Your task to perform on an android device: What's the weather today? Image 0: 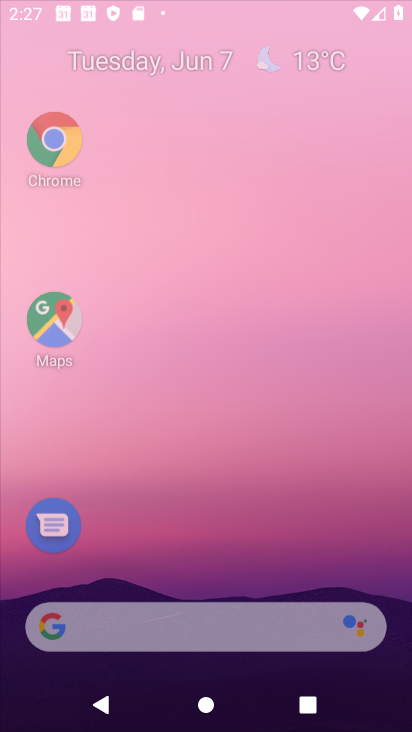
Step 0: click (328, 2)
Your task to perform on an android device: What's the weather today? Image 1: 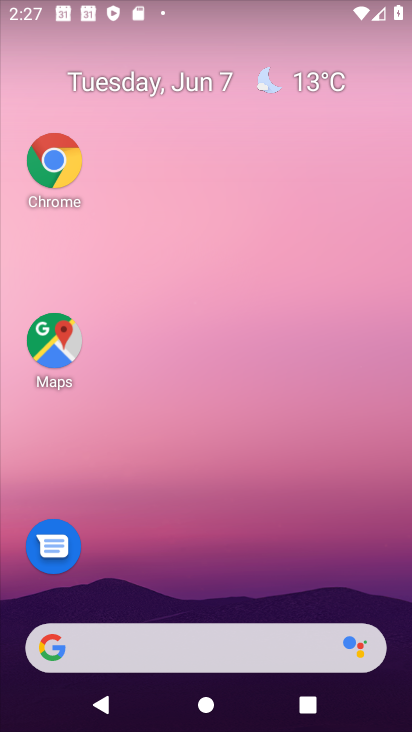
Step 1: drag from (176, 580) to (207, 106)
Your task to perform on an android device: What's the weather today? Image 2: 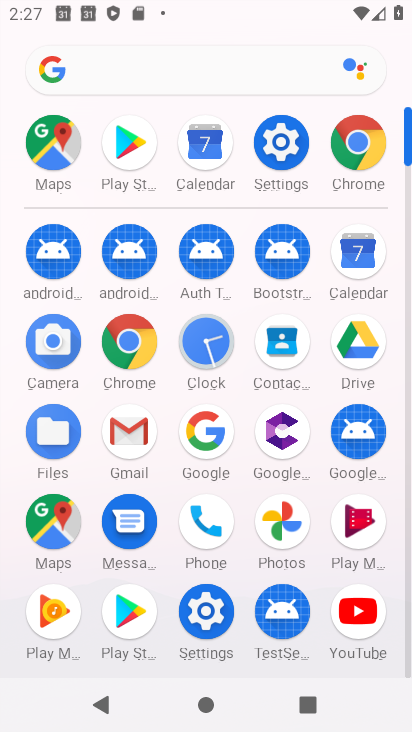
Step 2: click (176, 76)
Your task to perform on an android device: What's the weather today? Image 3: 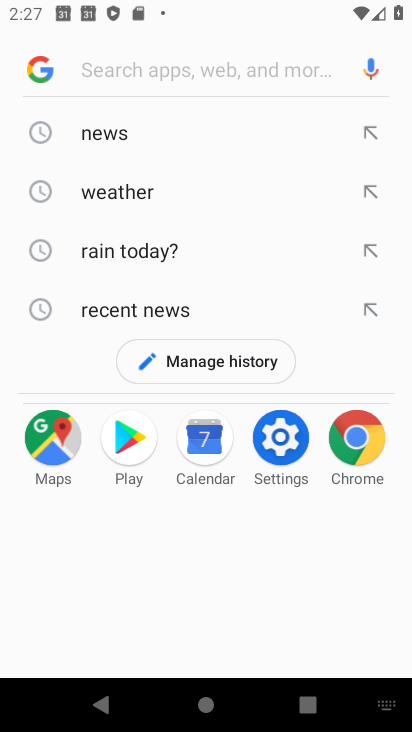
Step 3: click (131, 195)
Your task to perform on an android device: What's the weather today? Image 4: 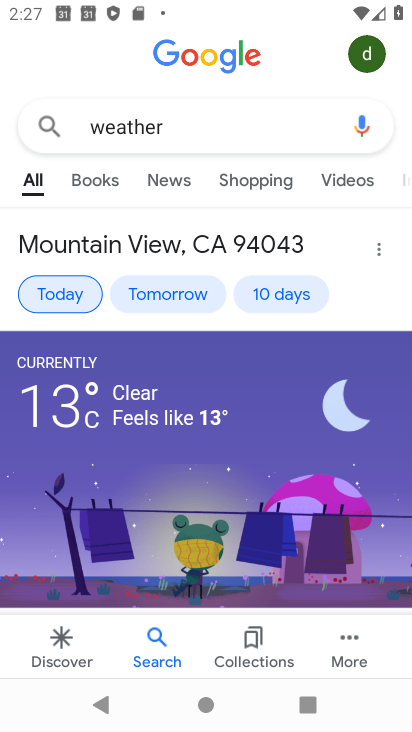
Step 4: drag from (179, 421) to (320, 34)
Your task to perform on an android device: What's the weather today? Image 5: 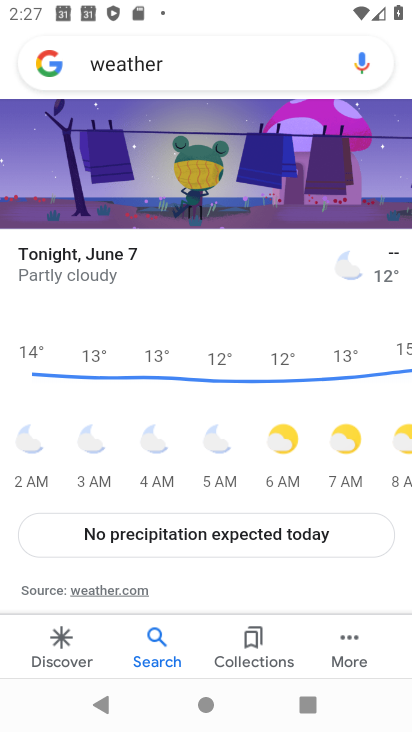
Step 5: drag from (209, 324) to (287, 39)
Your task to perform on an android device: What's the weather today? Image 6: 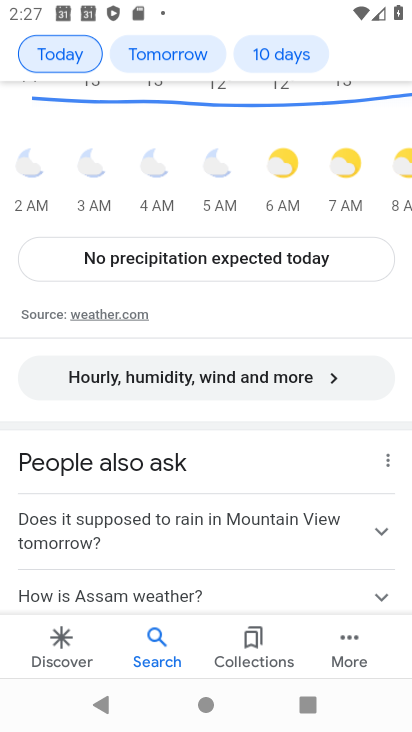
Step 6: drag from (209, 412) to (247, 3)
Your task to perform on an android device: What's the weather today? Image 7: 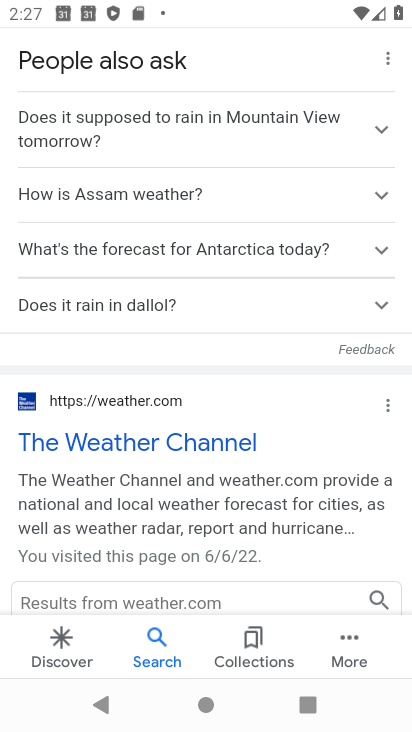
Step 7: drag from (152, 511) to (148, 176)
Your task to perform on an android device: What's the weather today? Image 8: 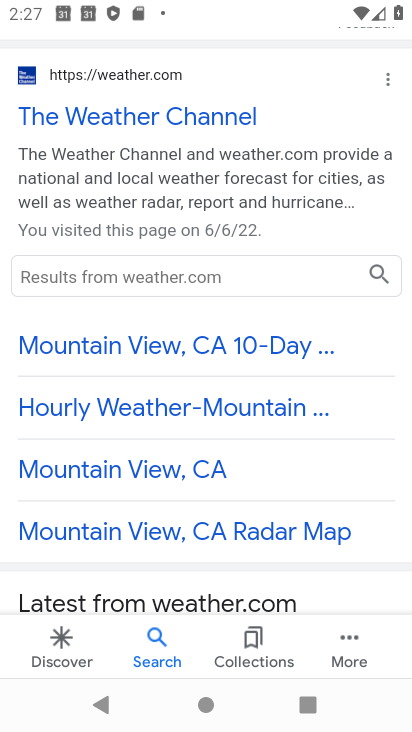
Step 8: drag from (178, 219) to (333, 689)
Your task to perform on an android device: What's the weather today? Image 9: 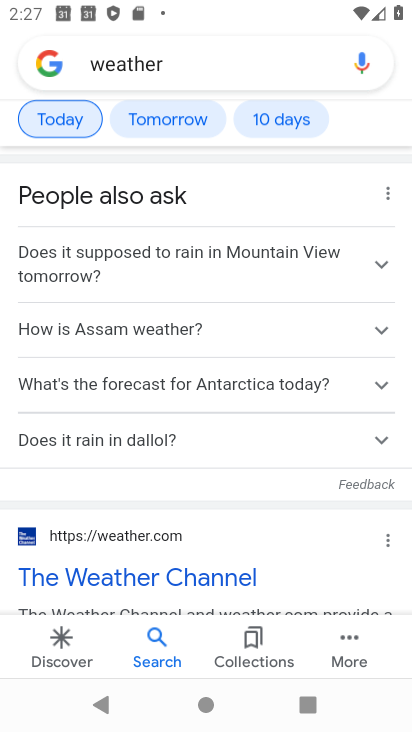
Step 9: drag from (207, 286) to (381, 726)
Your task to perform on an android device: What's the weather today? Image 10: 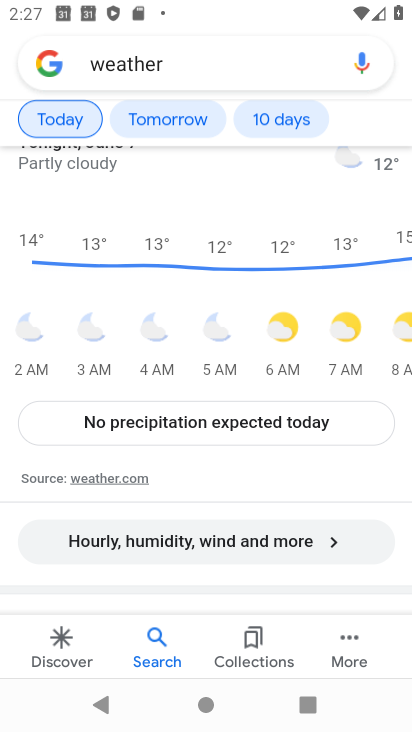
Step 10: click (346, 725)
Your task to perform on an android device: What's the weather today? Image 11: 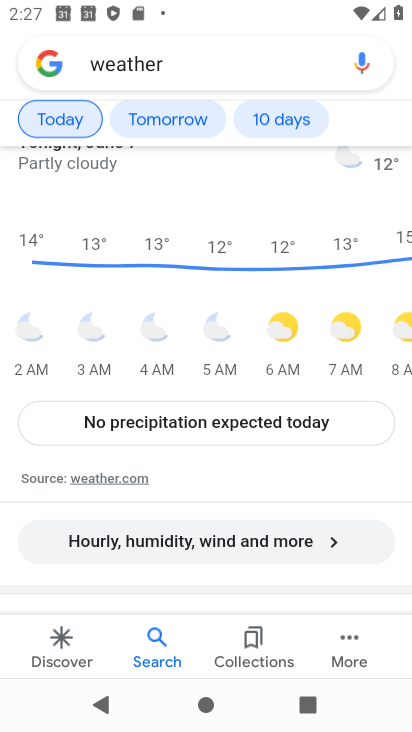
Step 11: task complete